Your task to perform on an android device: Go to Yahoo.com Image 0: 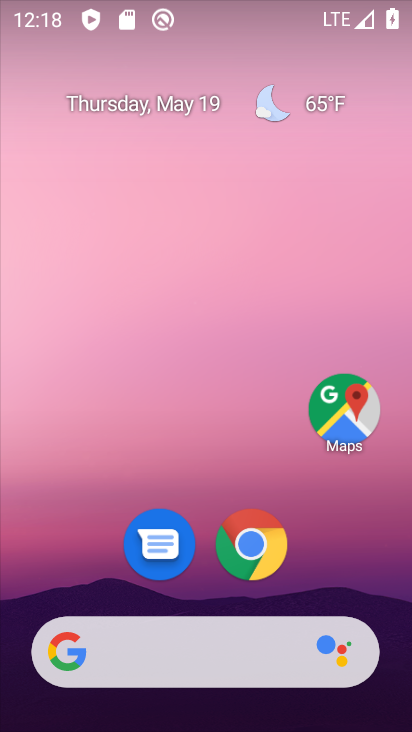
Step 0: drag from (350, 552) to (362, 110)
Your task to perform on an android device: Go to Yahoo.com Image 1: 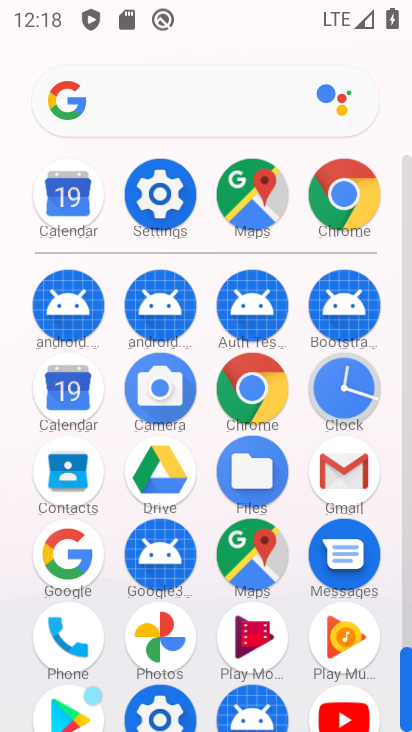
Step 1: click (255, 383)
Your task to perform on an android device: Go to Yahoo.com Image 2: 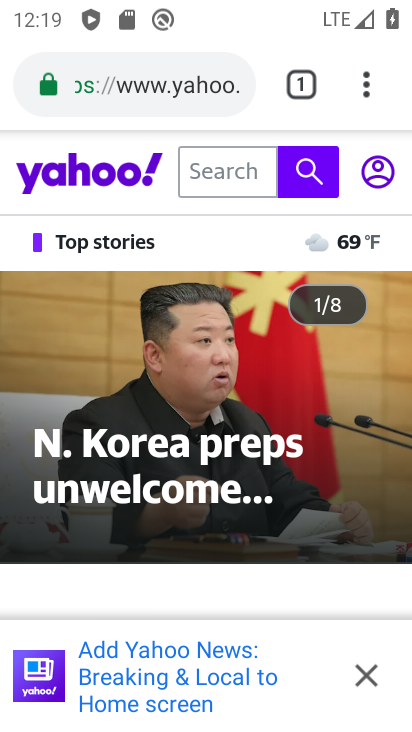
Step 2: task complete